Your task to perform on an android device: snooze an email in the gmail app Image 0: 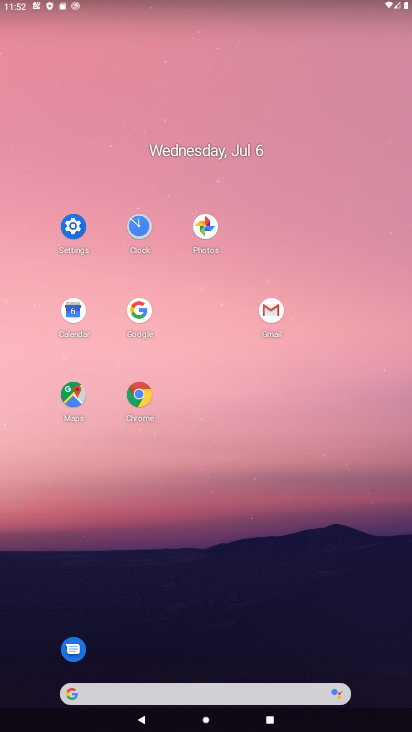
Step 0: click (275, 309)
Your task to perform on an android device: snooze an email in the gmail app Image 1: 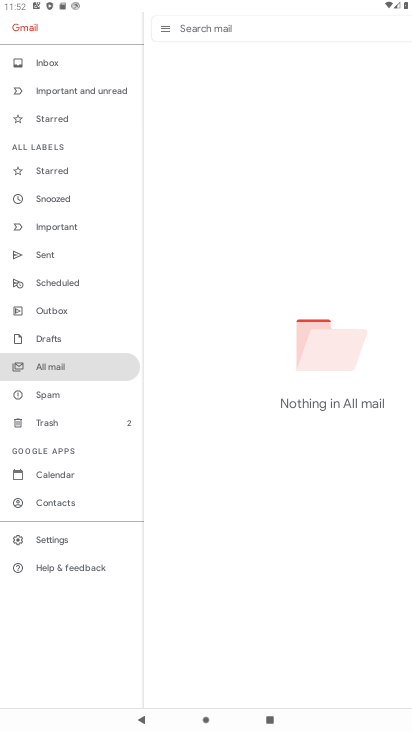
Step 1: click (95, 371)
Your task to perform on an android device: snooze an email in the gmail app Image 2: 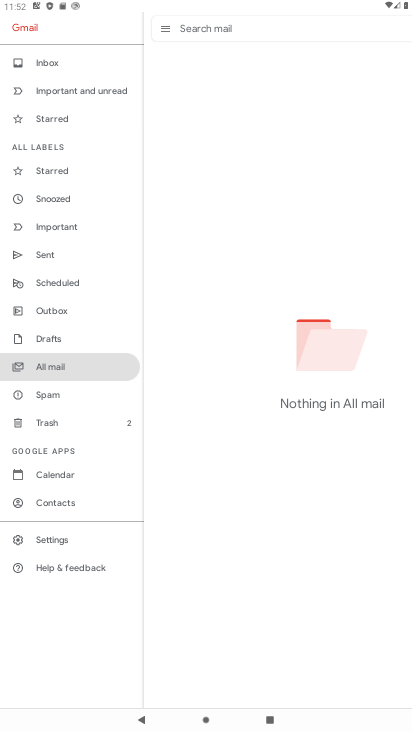
Step 2: task complete